Your task to perform on an android device: What is the recent news? Image 0: 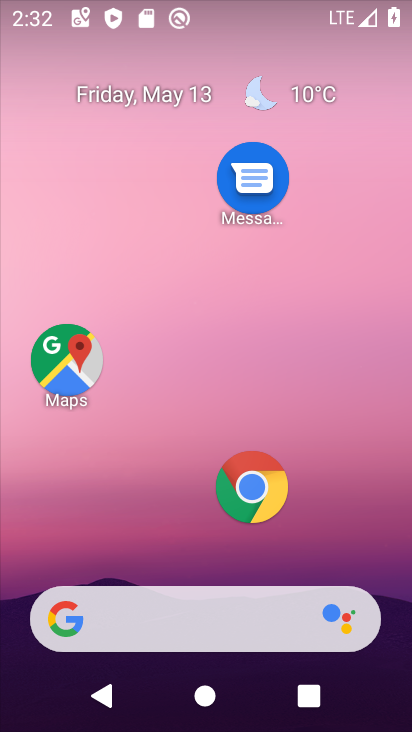
Step 0: click (253, 489)
Your task to perform on an android device: What is the recent news? Image 1: 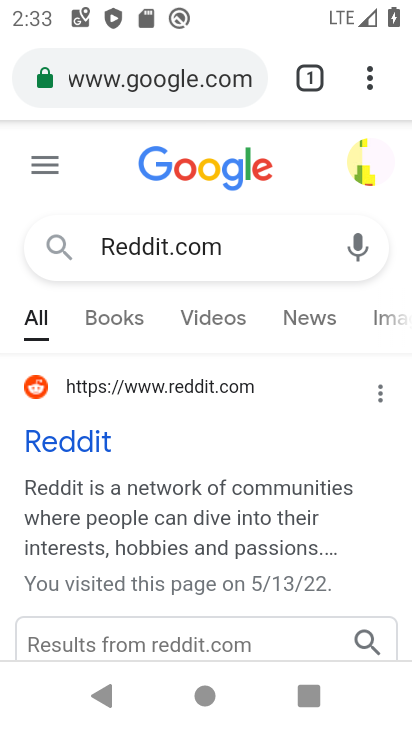
Step 1: click (140, 81)
Your task to perform on an android device: What is the recent news? Image 2: 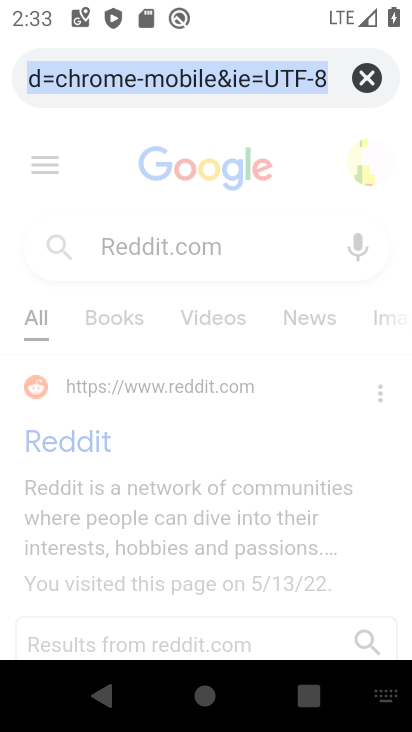
Step 2: type "recent news"
Your task to perform on an android device: What is the recent news? Image 3: 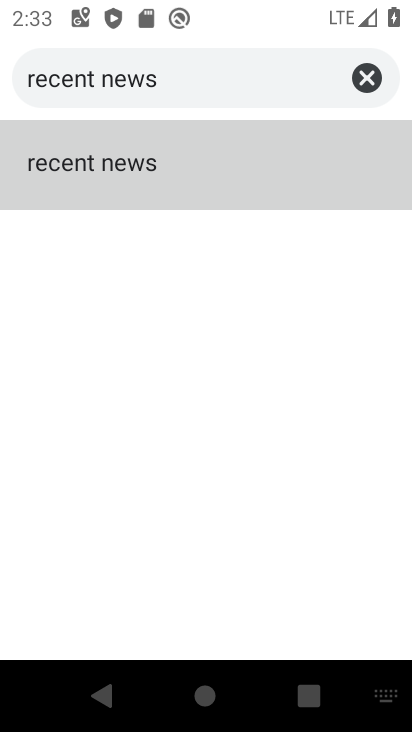
Step 3: click (168, 178)
Your task to perform on an android device: What is the recent news? Image 4: 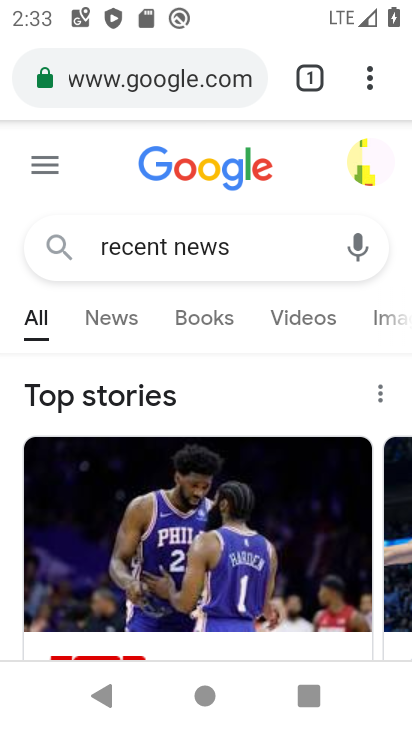
Step 4: task complete